Your task to perform on an android device: manage bookmarks in the chrome app Image 0: 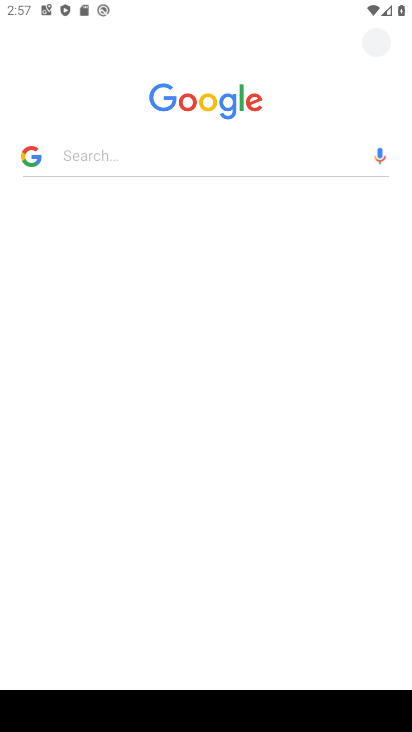
Step 0: click (163, 44)
Your task to perform on an android device: manage bookmarks in the chrome app Image 1: 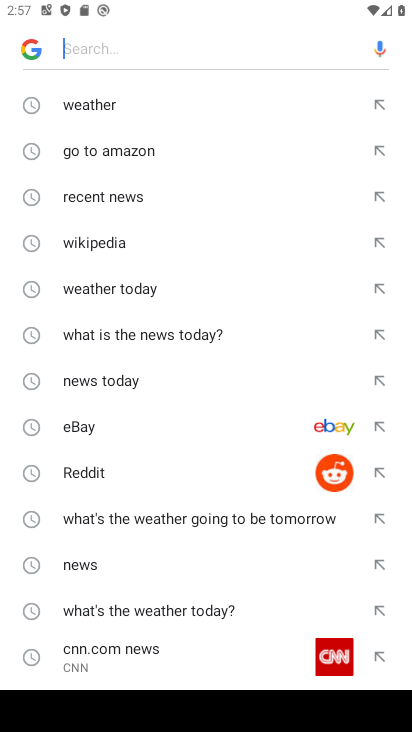
Step 1: drag from (222, 499) to (271, 200)
Your task to perform on an android device: manage bookmarks in the chrome app Image 2: 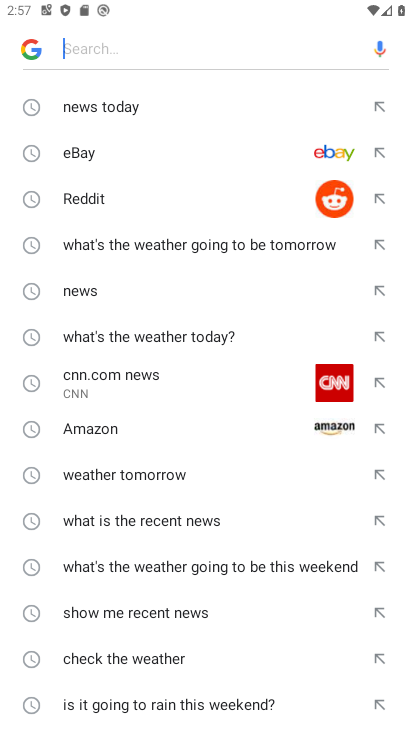
Step 2: press back button
Your task to perform on an android device: manage bookmarks in the chrome app Image 3: 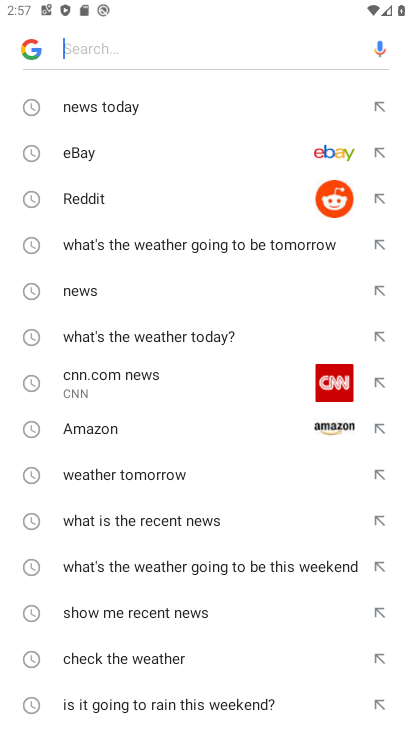
Step 3: press back button
Your task to perform on an android device: manage bookmarks in the chrome app Image 4: 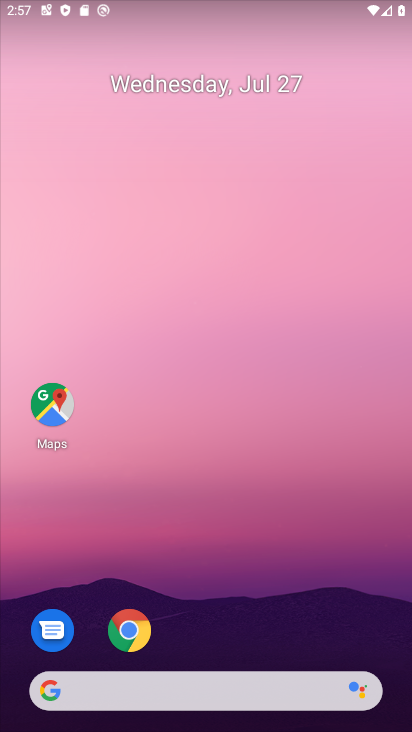
Step 4: drag from (248, 480) to (228, 71)
Your task to perform on an android device: manage bookmarks in the chrome app Image 5: 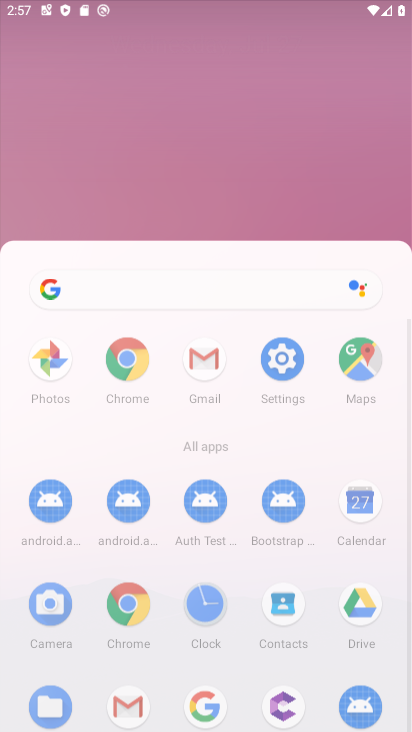
Step 5: drag from (210, 482) to (170, 163)
Your task to perform on an android device: manage bookmarks in the chrome app Image 6: 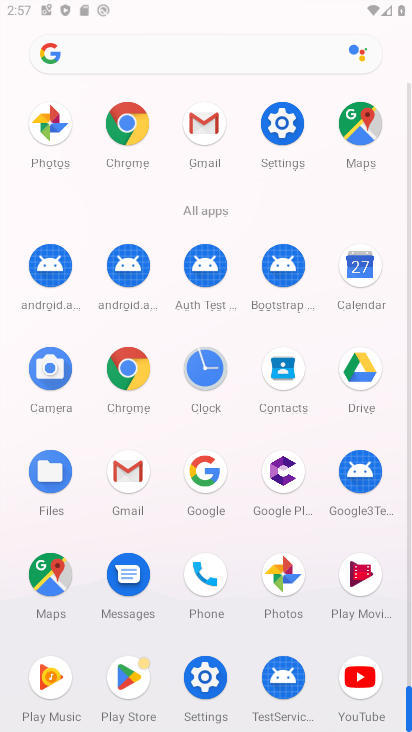
Step 6: drag from (238, 601) to (239, 365)
Your task to perform on an android device: manage bookmarks in the chrome app Image 7: 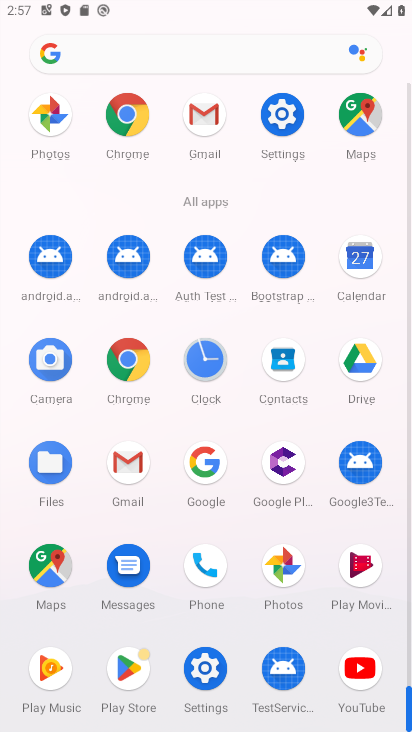
Step 7: click (130, 127)
Your task to perform on an android device: manage bookmarks in the chrome app Image 8: 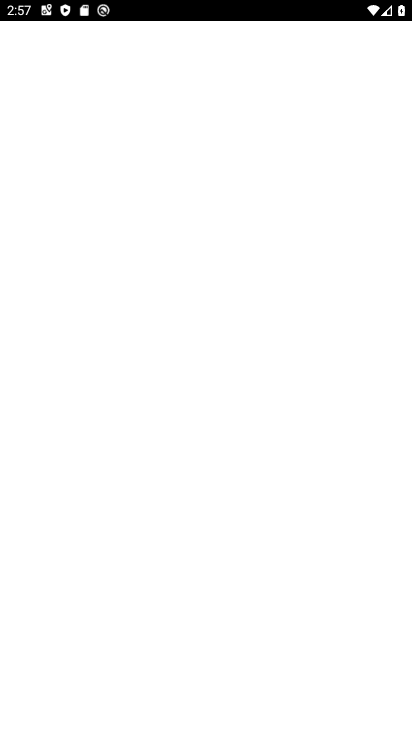
Step 8: click (130, 127)
Your task to perform on an android device: manage bookmarks in the chrome app Image 9: 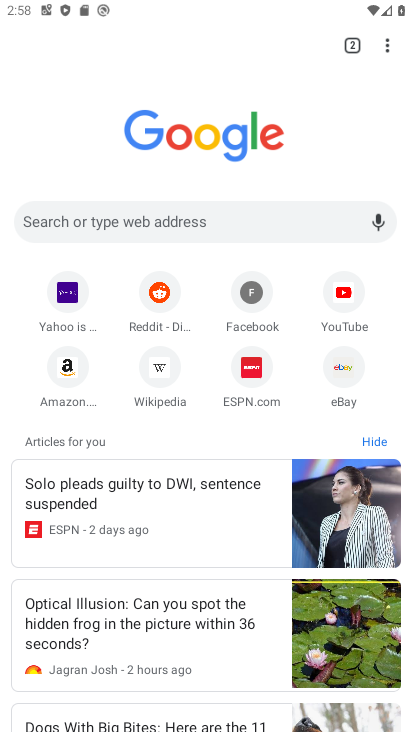
Step 9: task complete